Your task to perform on an android device: change the clock display to analog Image 0: 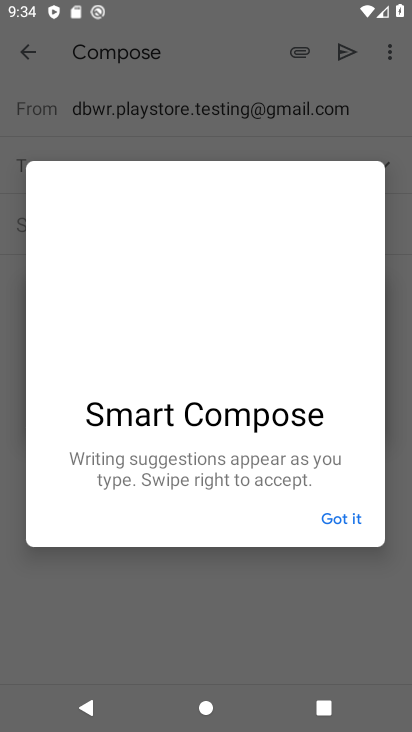
Step 0: press home button
Your task to perform on an android device: change the clock display to analog Image 1: 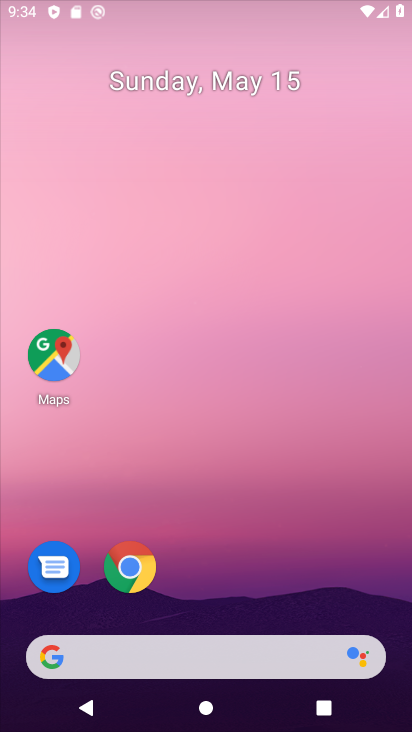
Step 1: drag from (243, 512) to (287, 112)
Your task to perform on an android device: change the clock display to analog Image 2: 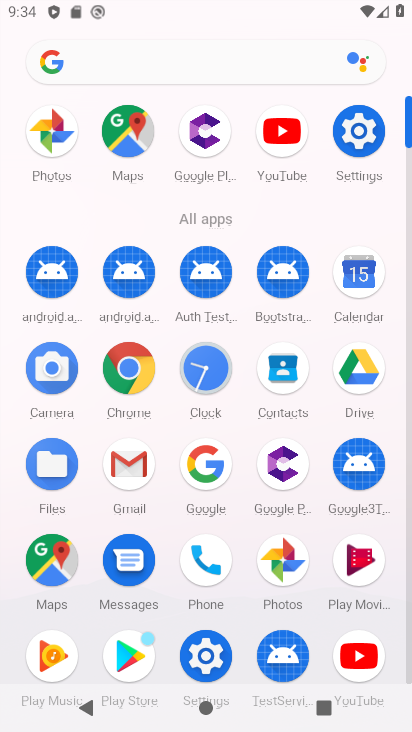
Step 2: click (209, 365)
Your task to perform on an android device: change the clock display to analog Image 3: 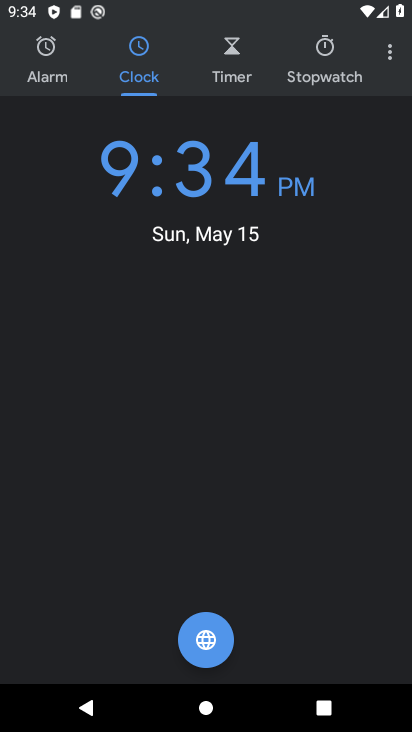
Step 3: click (383, 50)
Your task to perform on an android device: change the clock display to analog Image 4: 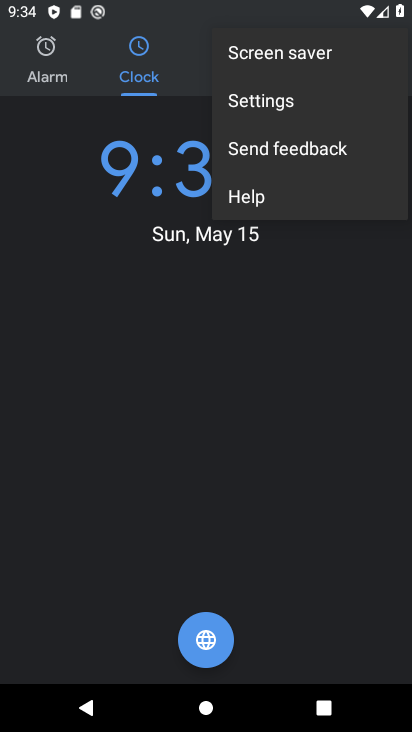
Step 4: click (282, 102)
Your task to perform on an android device: change the clock display to analog Image 5: 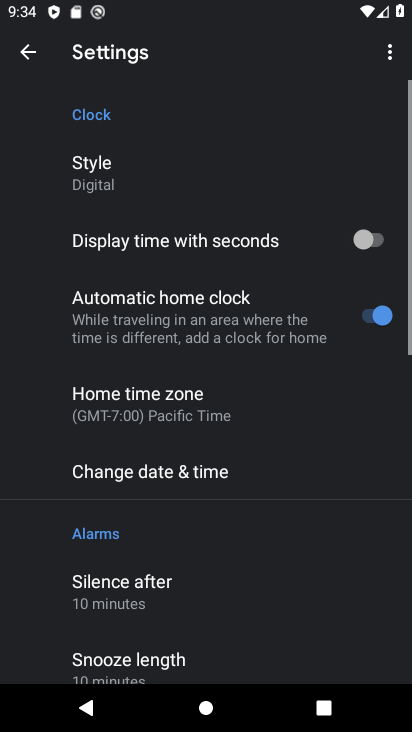
Step 5: click (150, 176)
Your task to perform on an android device: change the clock display to analog Image 6: 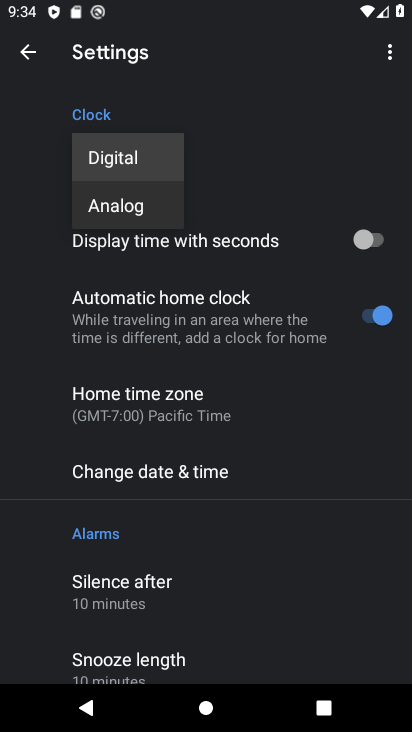
Step 6: click (116, 208)
Your task to perform on an android device: change the clock display to analog Image 7: 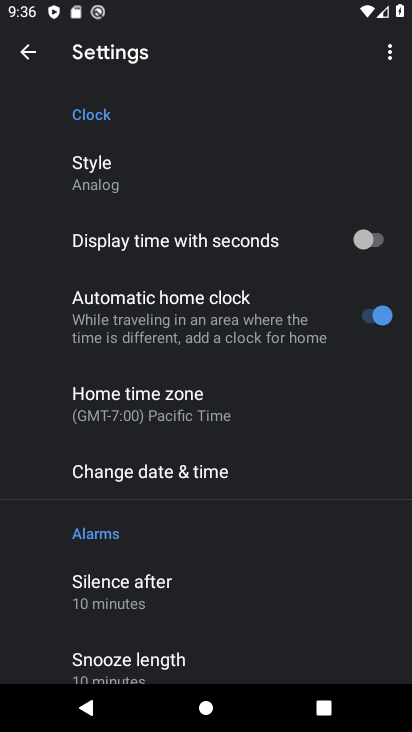
Step 7: task complete